Your task to perform on an android device: Open Google Chrome Image 0: 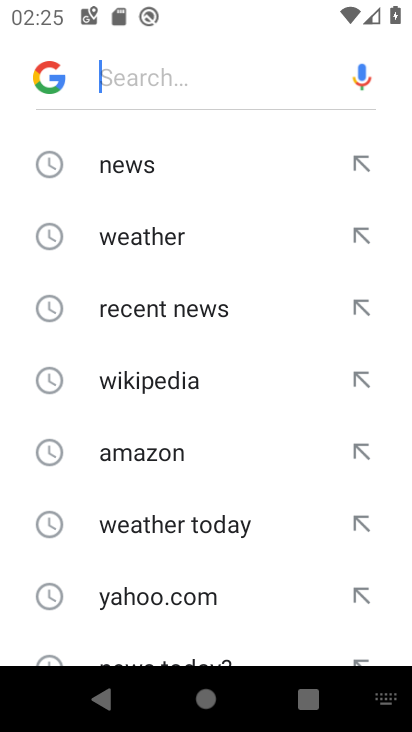
Step 0: press home button
Your task to perform on an android device: Open Google Chrome Image 1: 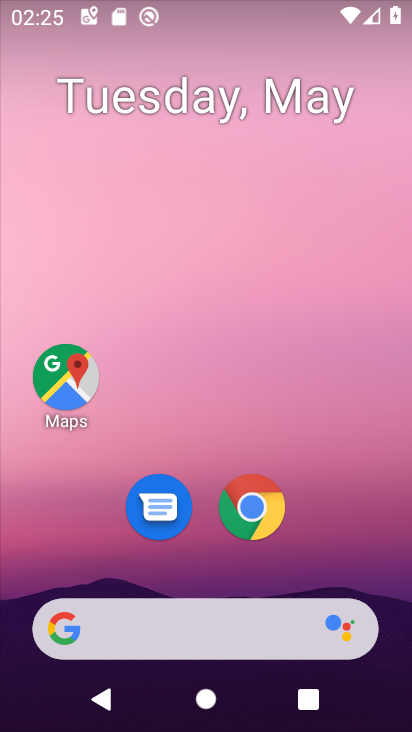
Step 1: click (271, 516)
Your task to perform on an android device: Open Google Chrome Image 2: 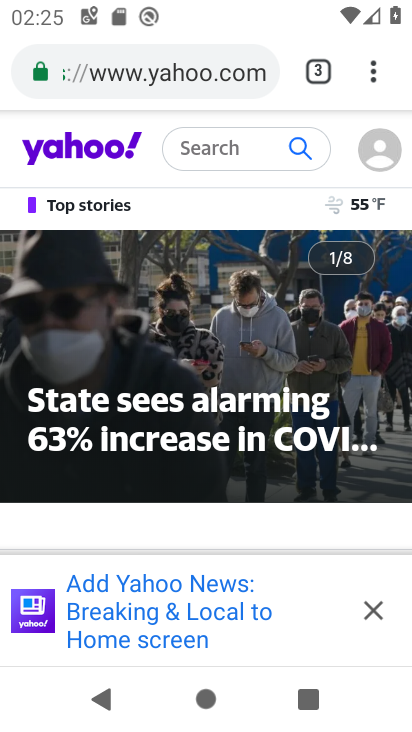
Step 2: task complete